Your task to perform on an android device: set an alarm Image 0: 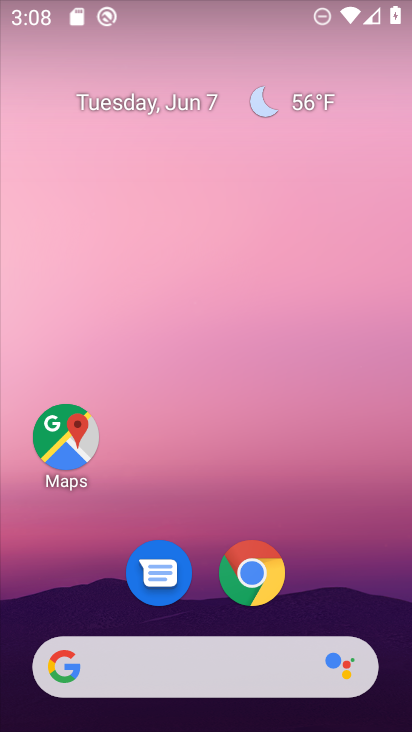
Step 0: drag from (344, 587) to (352, 3)
Your task to perform on an android device: set an alarm Image 1: 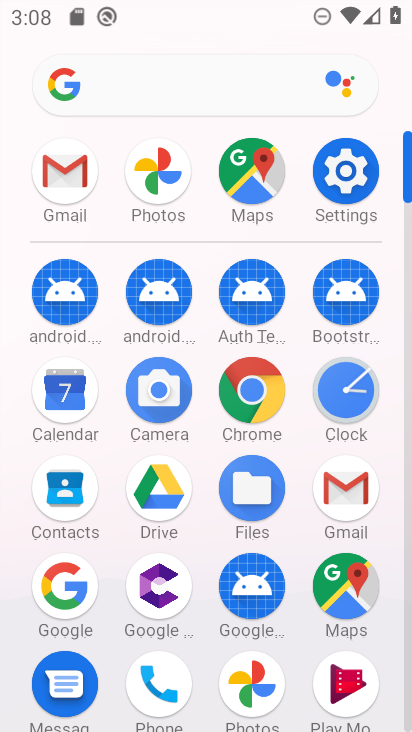
Step 1: click (374, 388)
Your task to perform on an android device: set an alarm Image 2: 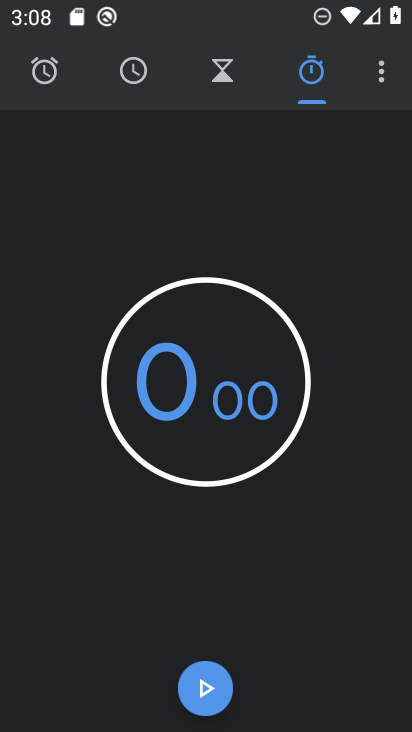
Step 2: click (32, 67)
Your task to perform on an android device: set an alarm Image 3: 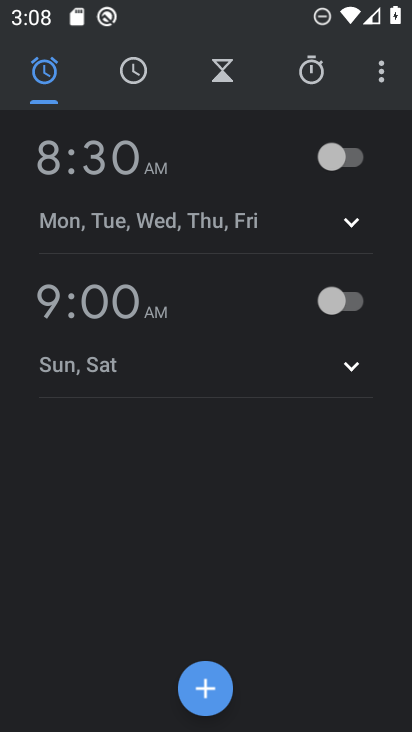
Step 3: click (217, 681)
Your task to perform on an android device: set an alarm Image 4: 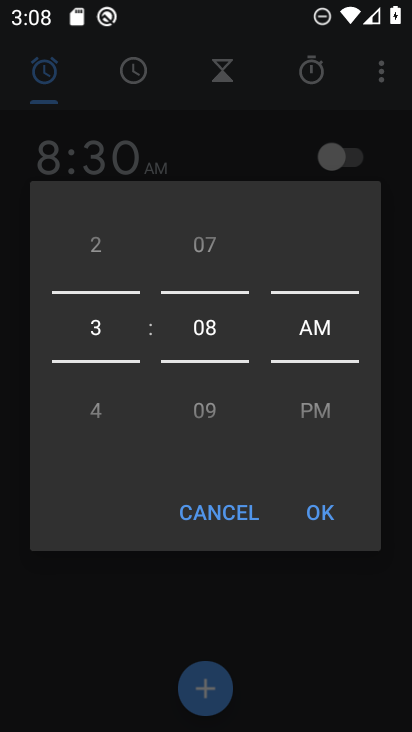
Step 4: click (320, 520)
Your task to perform on an android device: set an alarm Image 5: 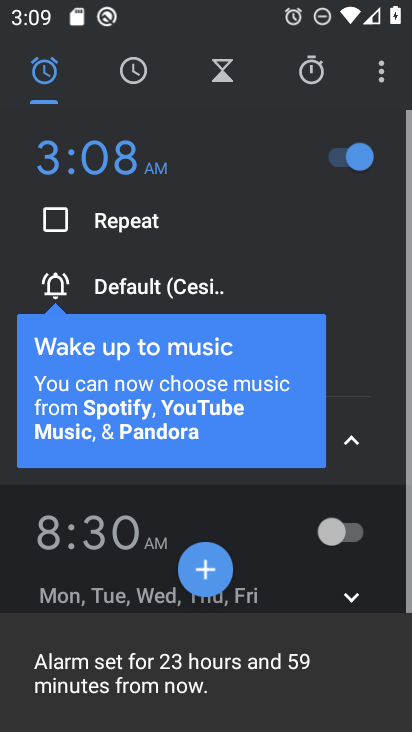
Step 5: task complete